Your task to perform on an android device: turn off translation in the chrome app Image 0: 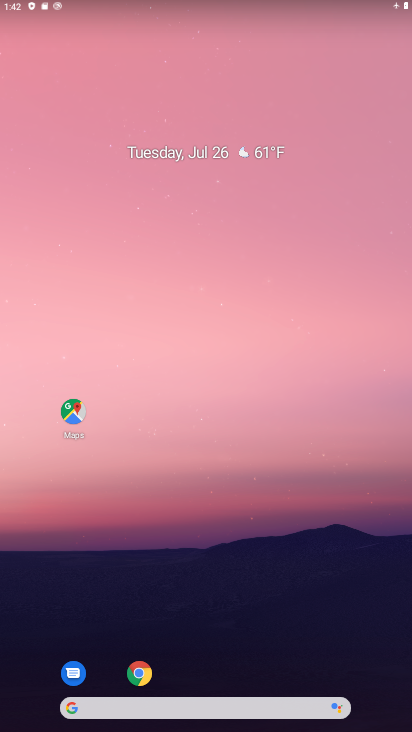
Step 0: drag from (179, 671) to (239, 220)
Your task to perform on an android device: turn off translation in the chrome app Image 1: 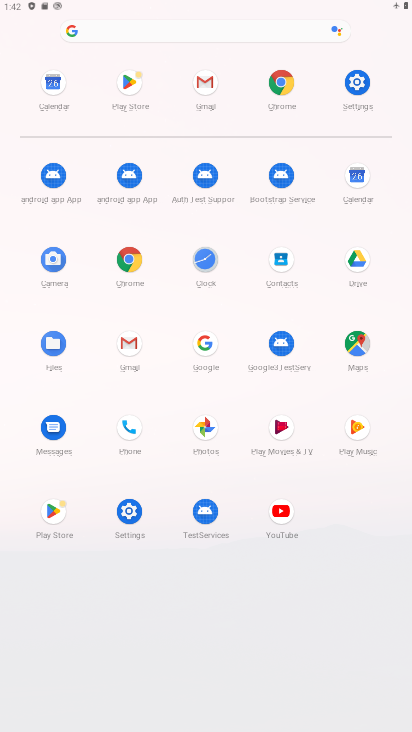
Step 1: click (129, 257)
Your task to perform on an android device: turn off translation in the chrome app Image 2: 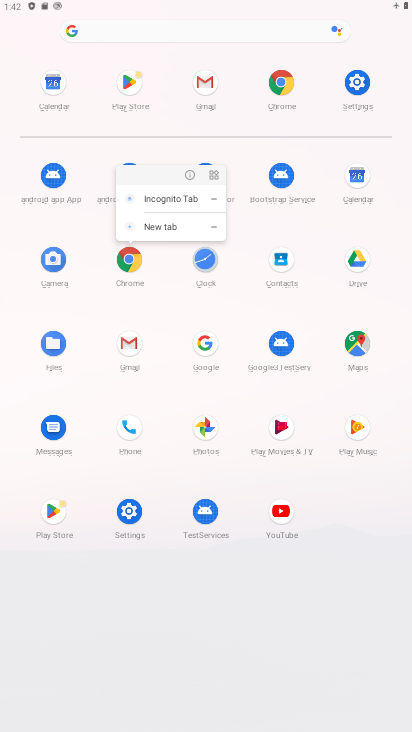
Step 2: click (185, 175)
Your task to perform on an android device: turn off translation in the chrome app Image 3: 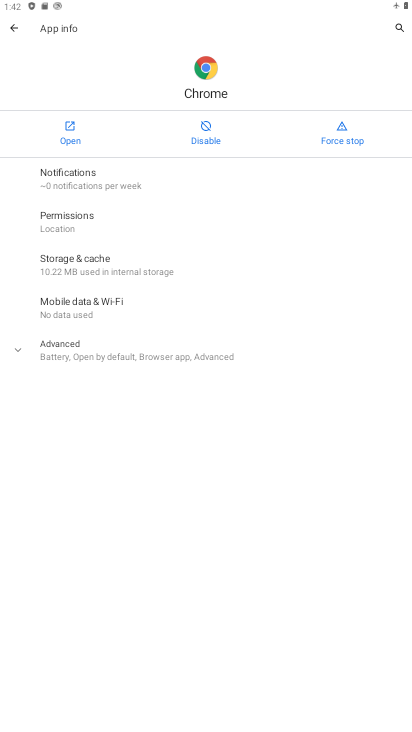
Step 3: click (60, 128)
Your task to perform on an android device: turn off translation in the chrome app Image 4: 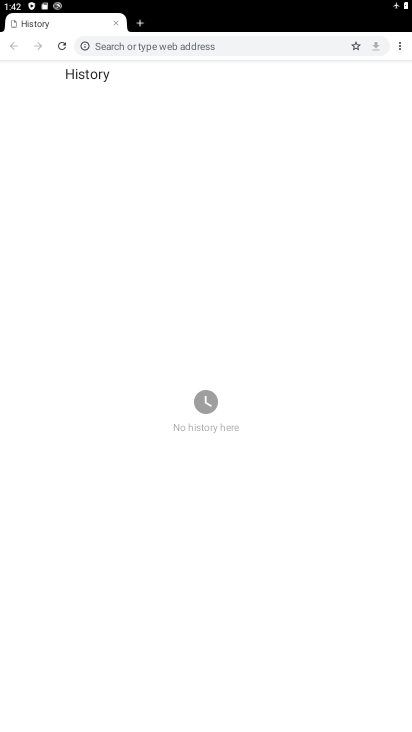
Step 4: drag from (227, 594) to (270, 254)
Your task to perform on an android device: turn off translation in the chrome app Image 5: 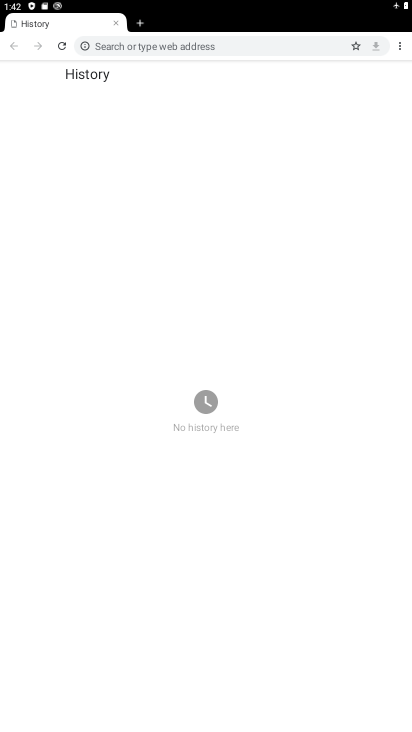
Step 5: drag from (216, 246) to (255, 566)
Your task to perform on an android device: turn off translation in the chrome app Image 6: 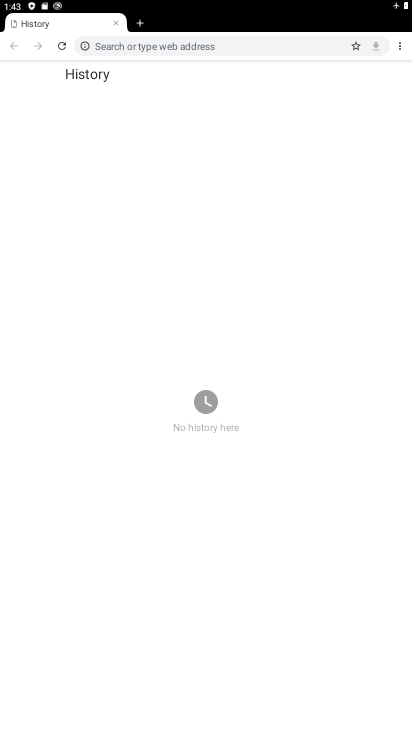
Step 6: drag from (403, 48) to (328, 213)
Your task to perform on an android device: turn off translation in the chrome app Image 7: 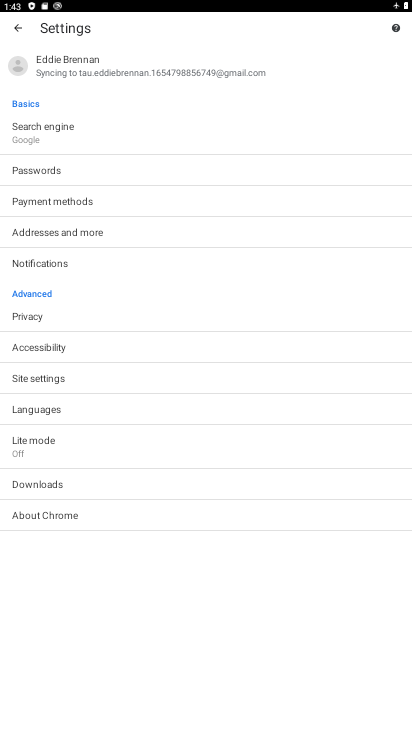
Step 7: click (64, 405)
Your task to perform on an android device: turn off translation in the chrome app Image 8: 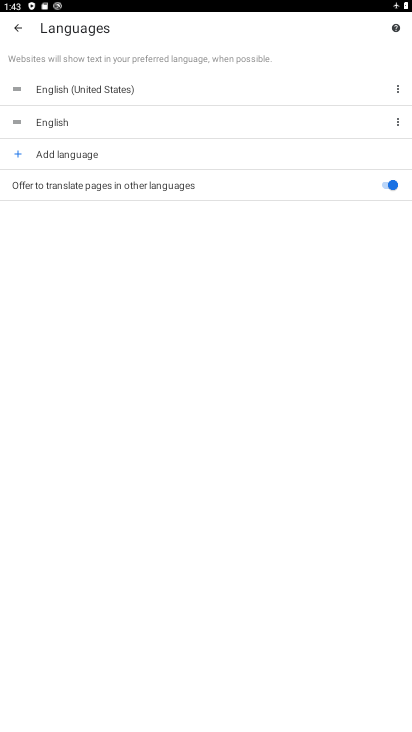
Step 8: click (387, 174)
Your task to perform on an android device: turn off translation in the chrome app Image 9: 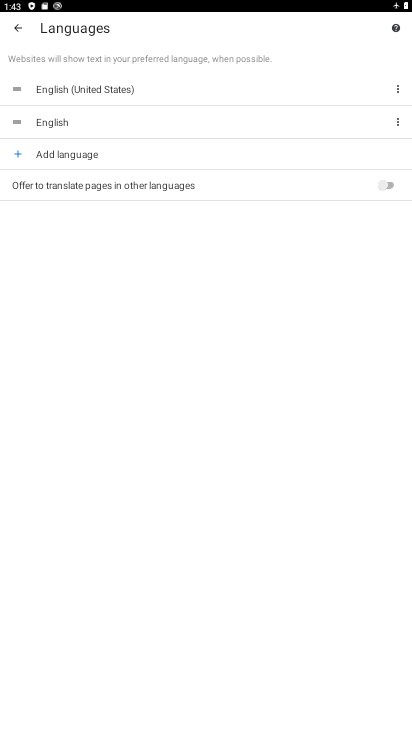
Step 9: task complete